Your task to perform on an android device: Go to eBay Image 0: 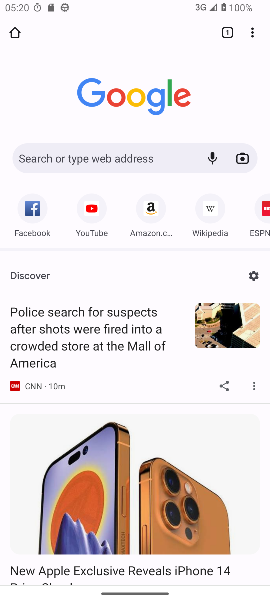
Step 0: click (58, 164)
Your task to perform on an android device: Go to eBay Image 1: 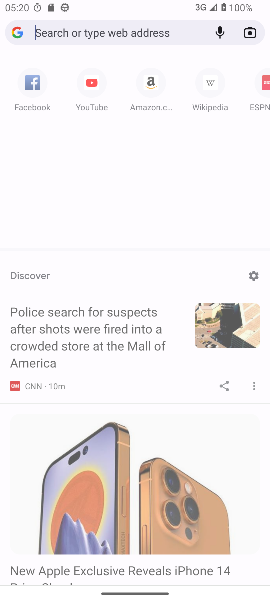
Step 1: click (61, 161)
Your task to perform on an android device: Go to eBay Image 2: 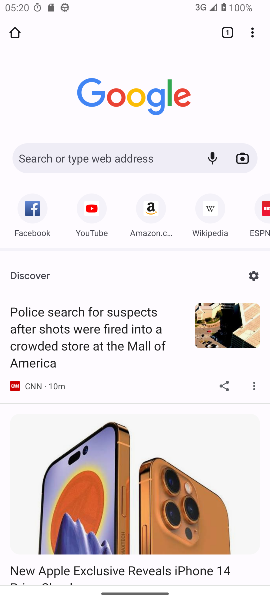
Step 2: click (59, 164)
Your task to perform on an android device: Go to eBay Image 3: 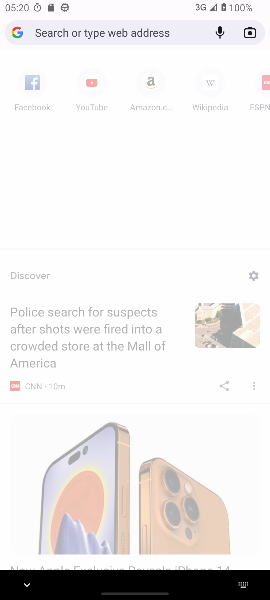
Step 3: click (62, 156)
Your task to perform on an android device: Go to eBay Image 4: 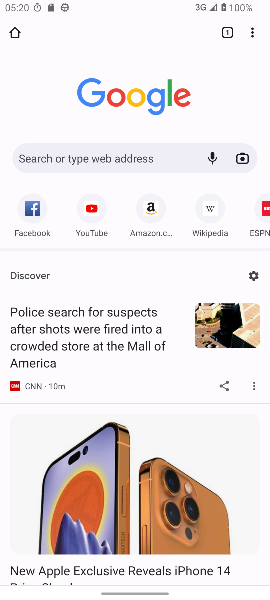
Step 4: click (62, 156)
Your task to perform on an android device: Go to eBay Image 5: 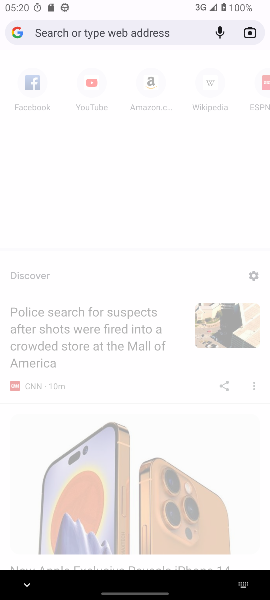
Step 5: click (64, 153)
Your task to perform on an android device: Go to eBay Image 6: 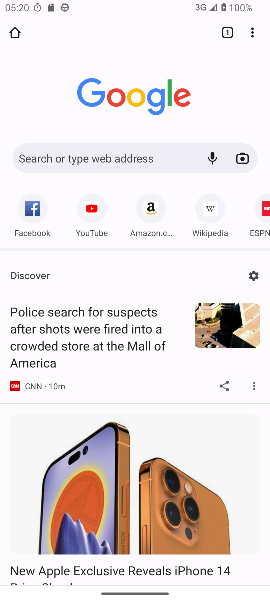
Step 6: click (87, 151)
Your task to perform on an android device: Go to eBay Image 7: 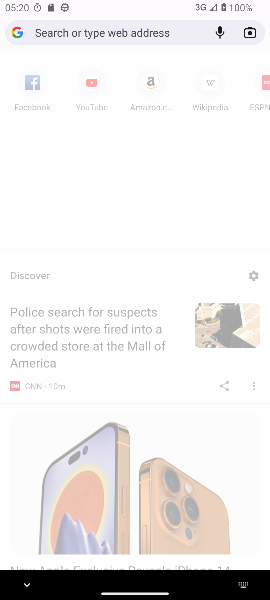
Step 7: type "eBay"
Your task to perform on an android device: Go to eBay Image 8: 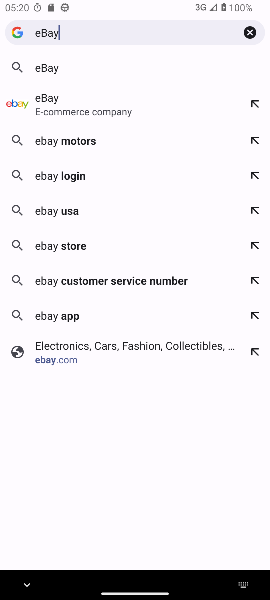
Step 8: click (52, 101)
Your task to perform on an android device: Go to eBay Image 9: 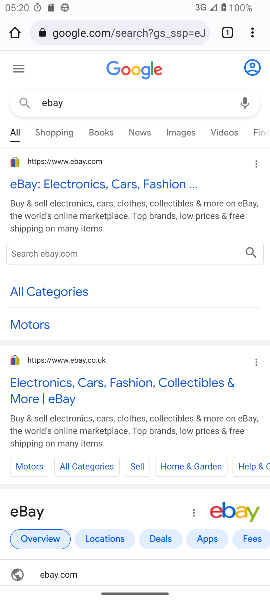
Step 9: task complete